Your task to perform on an android device: remove spam from my inbox in the gmail app Image 0: 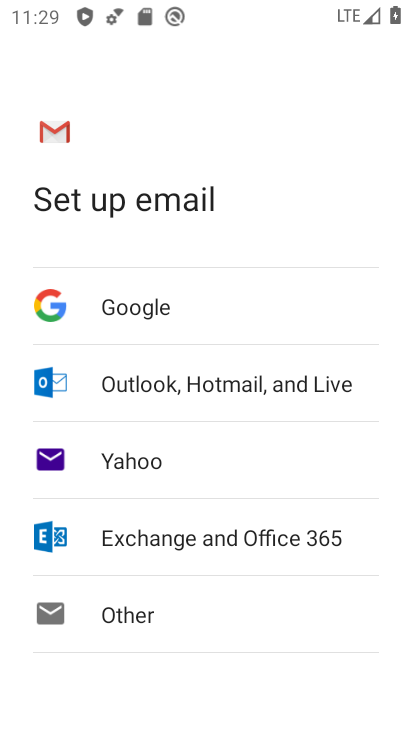
Step 0: press home button
Your task to perform on an android device: remove spam from my inbox in the gmail app Image 1: 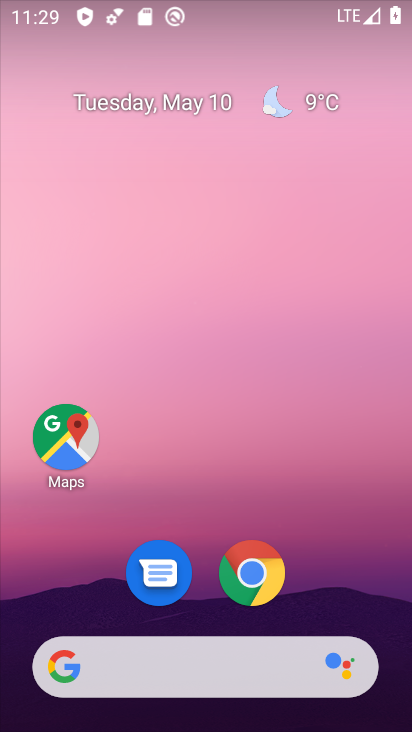
Step 1: drag from (133, 691) to (271, 150)
Your task to perform on an android device: remove spam from my inbox in the gmail app Image 2: 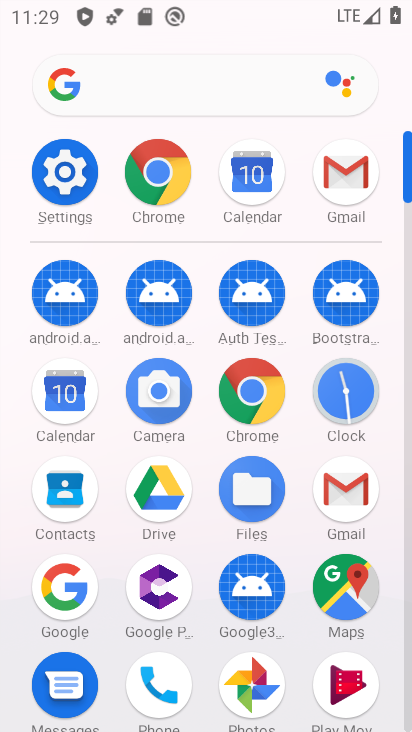
Step 2: click (347, 191)
Your task to perform on an android device: remove spam from my inbox in the gmail app Image 3: 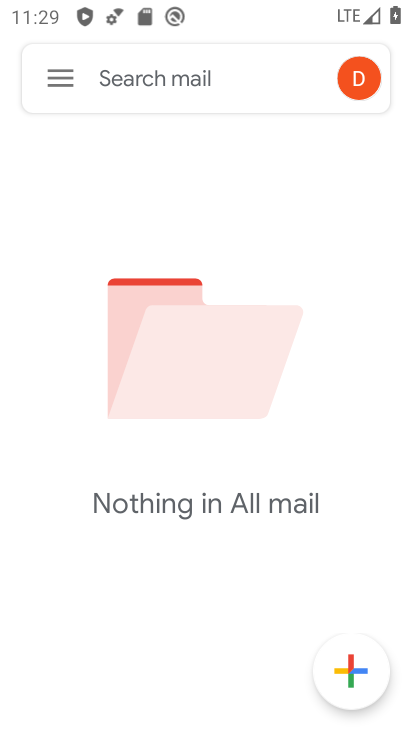
Step 3: click (61, 81)
Your task to perform on an android device: remove spam from my inbox in the gmail app Image 4: 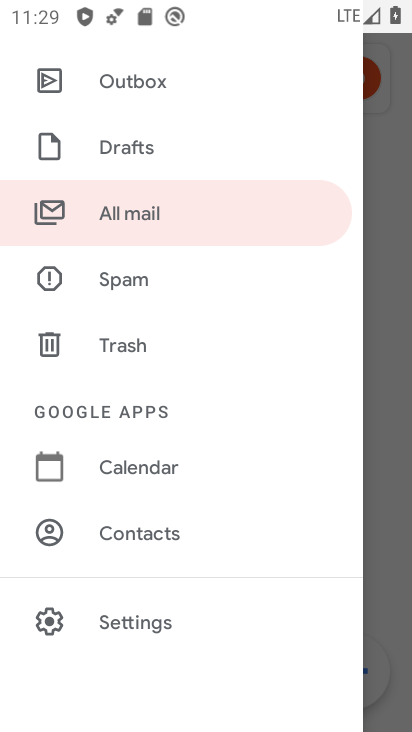
Step 4: click (125, 282)
Your task to perform on an android device: remove spam from my inbox in the gmail app Image 5: 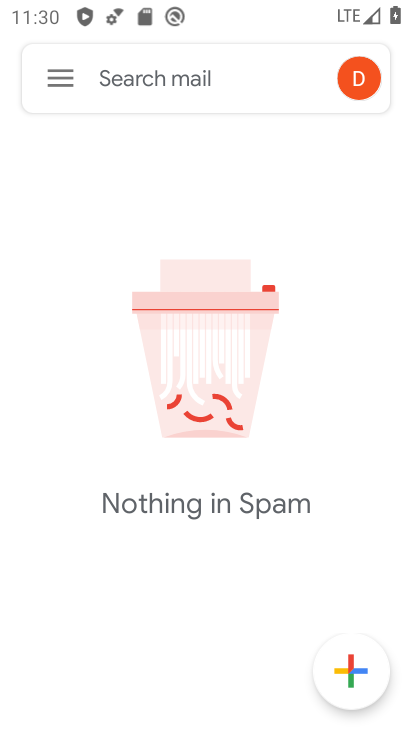
Step 5: task complete